Your task to perform on an android device: Search for seafood restaurants on Google Maps Image 0: 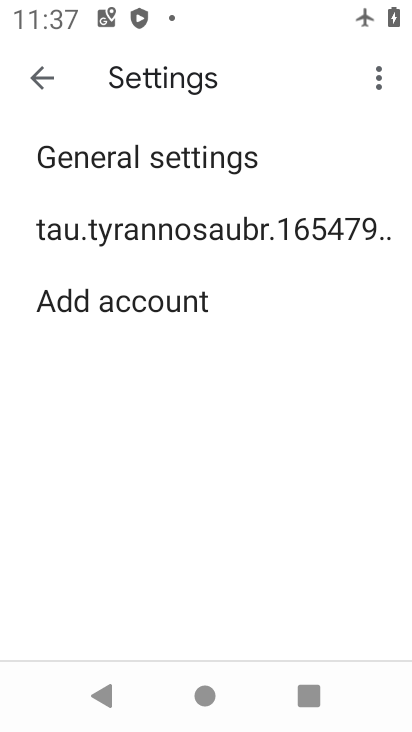
Step 0: press home button
Your task to perform on an android device: Search for seafood restaurants on Google Maps Image 1: 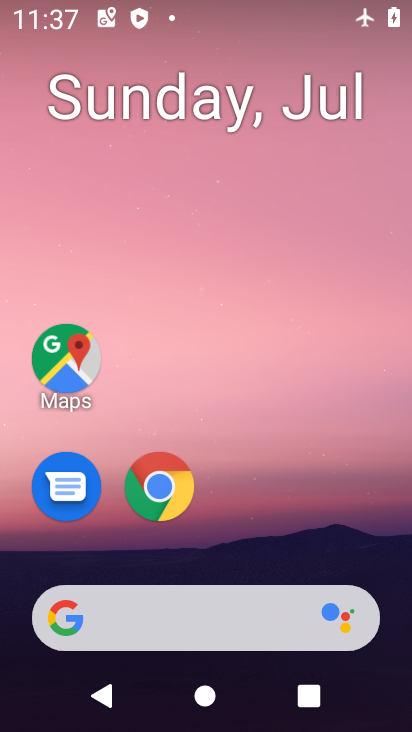
Step 1: drag from (378, 547) to (338, 84)
Your task to perform on an android device: Search for seafood restaurants on Google Maps Image 2: 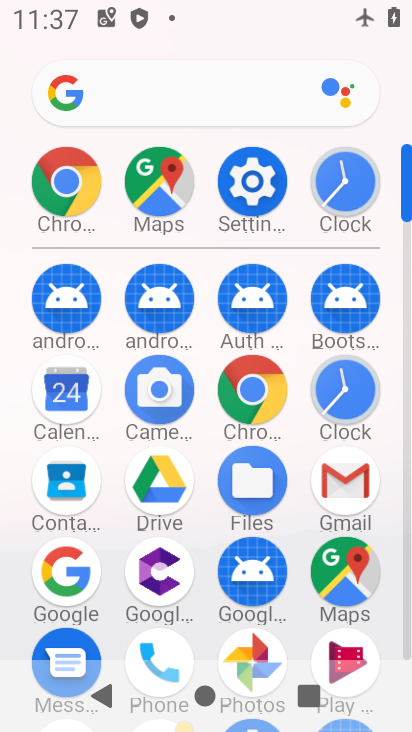
Step 2: click (354, 571)
Your task to perform on an android device: Search for seafood restaurants on Google Maps Image 3: 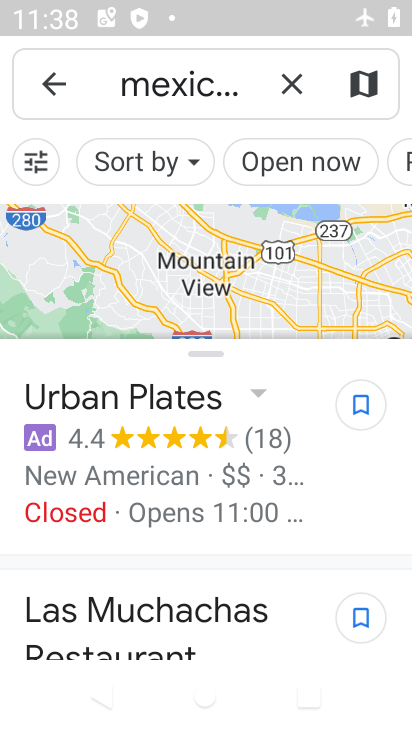
Step 3: press back button
Your task to perform on an android device: Search for seafood restaurants on Google Maps Image 4: 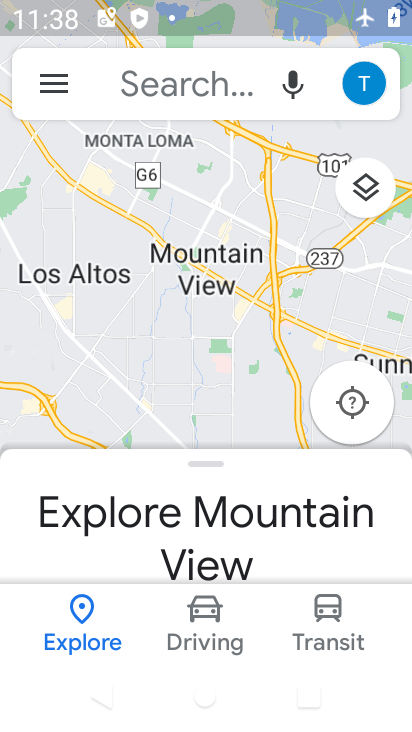
Step 4: click (169, 88)
Your task to perform on an android device: Search for seafood restaurants on Google Maps Image 5: 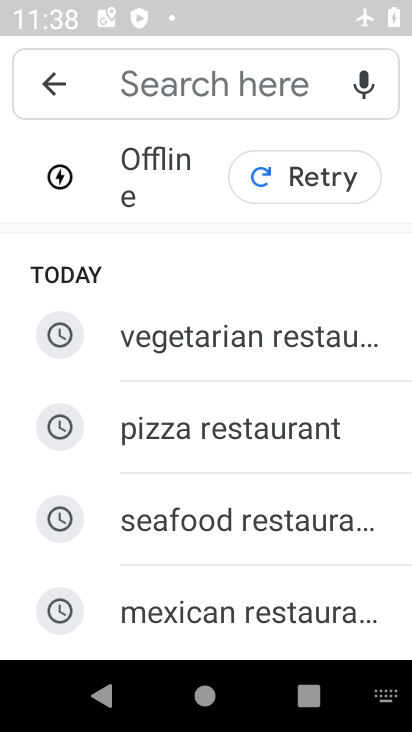
Step 5: type "seafood restaurants"
Your task to perform on an android device: Search for seafood restaurants on Google Maps Image 6: 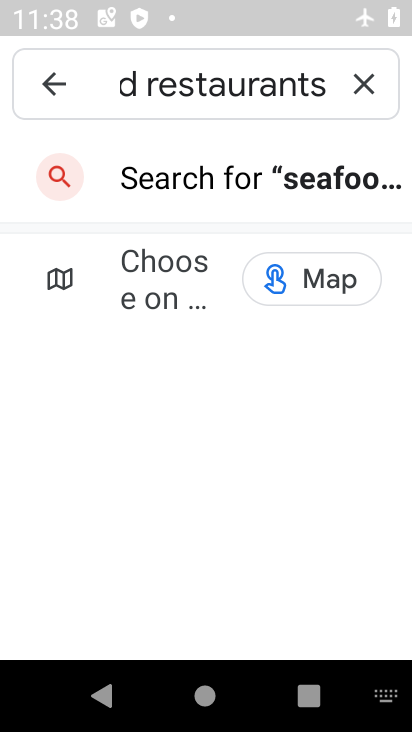
Step 6: click (345, 198)
Your task to perform on an android device: Search for seafood restaurants on Google Maps Image 7: 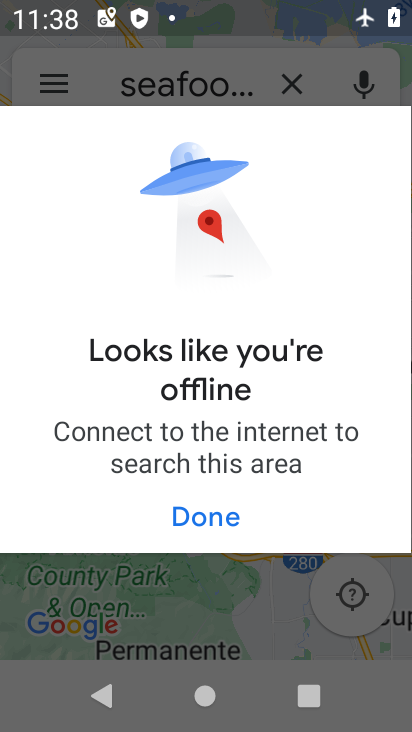
Step 7: task complete